Your task to perform on an android device: Go to Google Image 0: 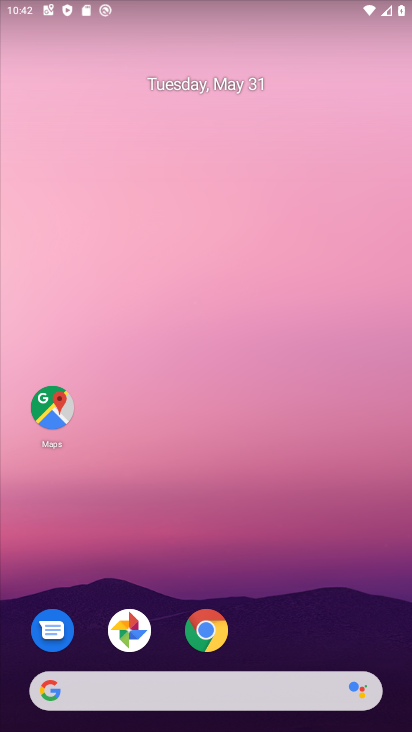
Step 0: drag from (248, 630) to (246, 285)
Your task to perform on an android device: Go to Google Image 1: 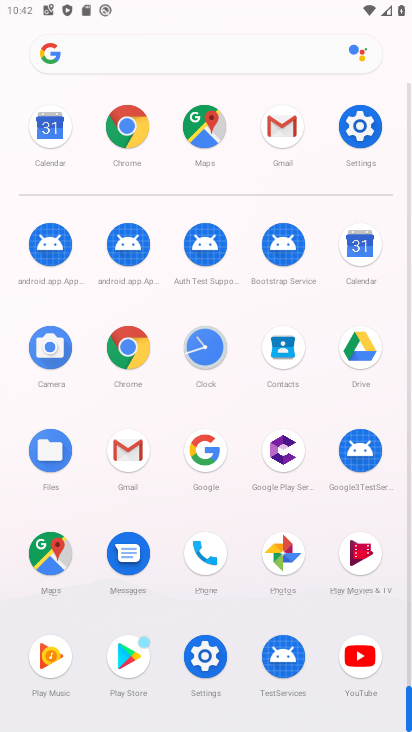
Step 1: click (203, 445)
Your task to perform on an android device: Go to Google Image 2: 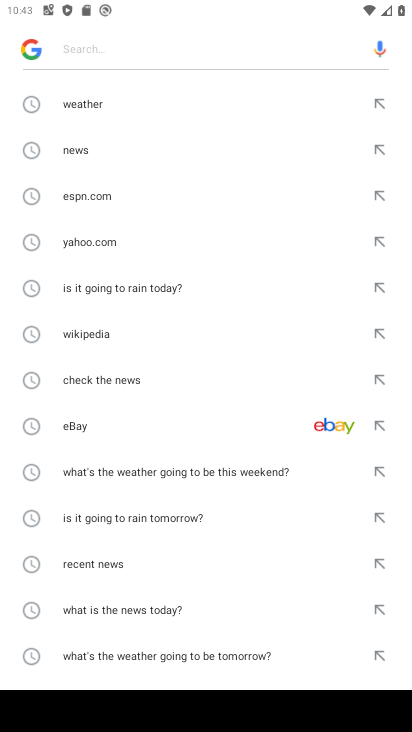
Step 2: press home button
Your task to perform on an android device: Go to Google Image 3: 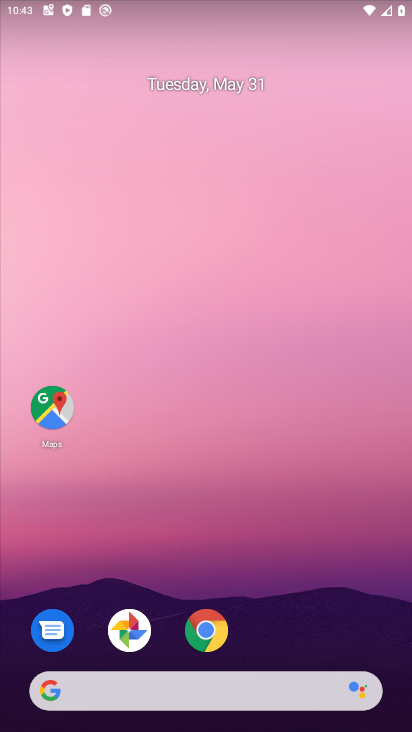
Step 3: drag from (250, 643) to (252, 180)
Your task to perform on an android device: Go to Google Image 4: 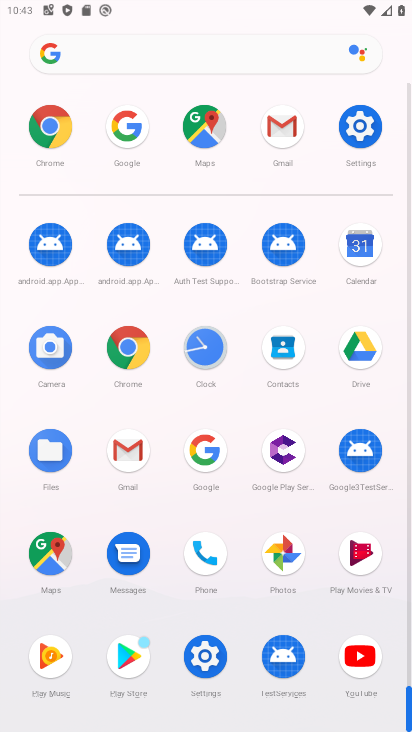
Step 4: click (193, 448)
Your task to perform on an android device: Go to Google Image 5: 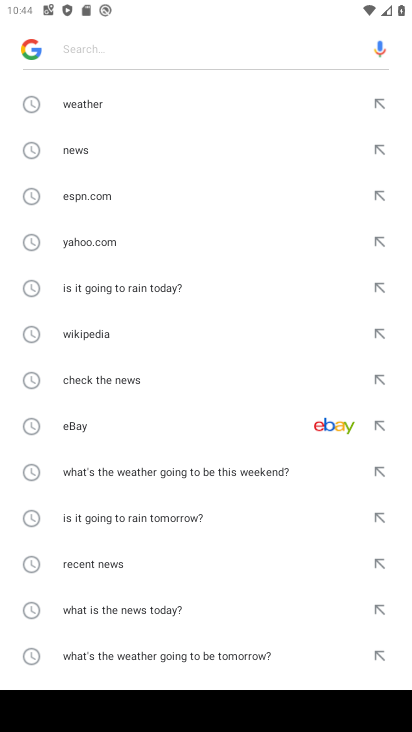
Step 5: task complete